Your task to perform on an android device: turn off wifi Image 0: 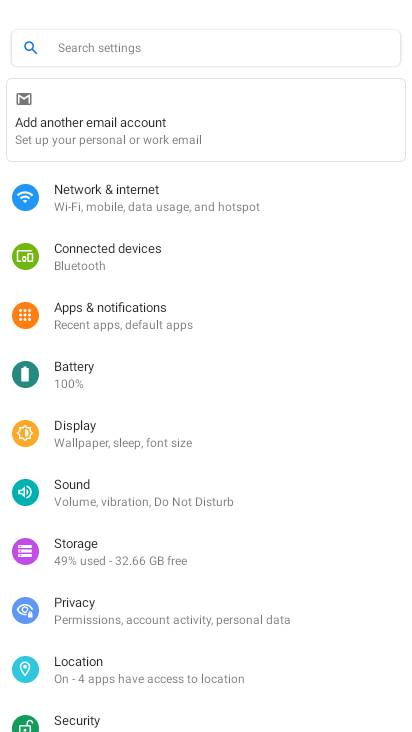
Step 0: click (207, 203)
Your task to perform on an android device: turn off wifi Image 1: 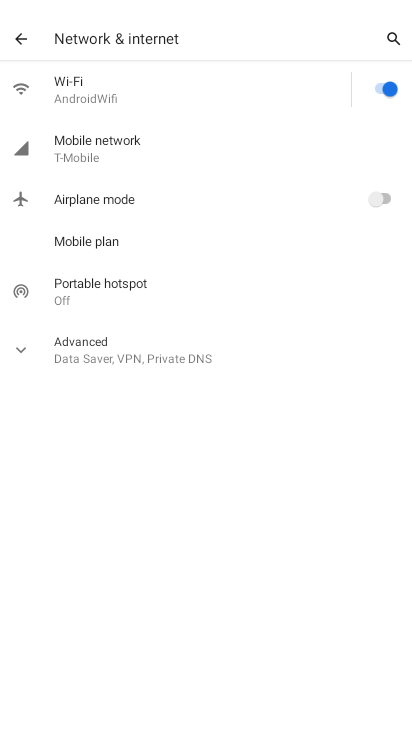
Step 1: click (382, 83)
Your task to perform on an android device: turn off wifi Image 2: 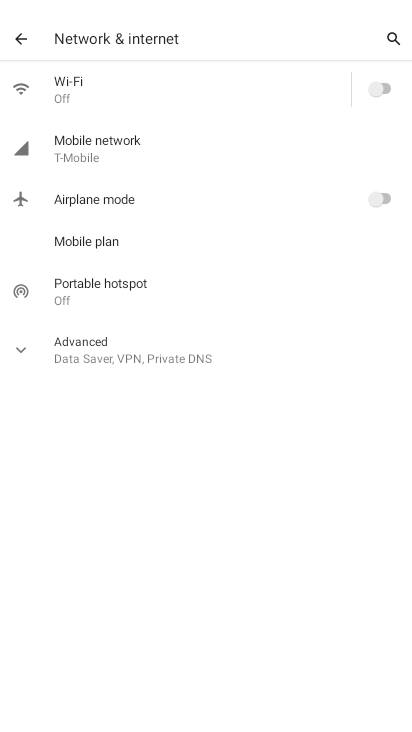
Step 2: task complete